Your task to perform on an android device: Open Google Chrome and open the bookmarks view Image 0: 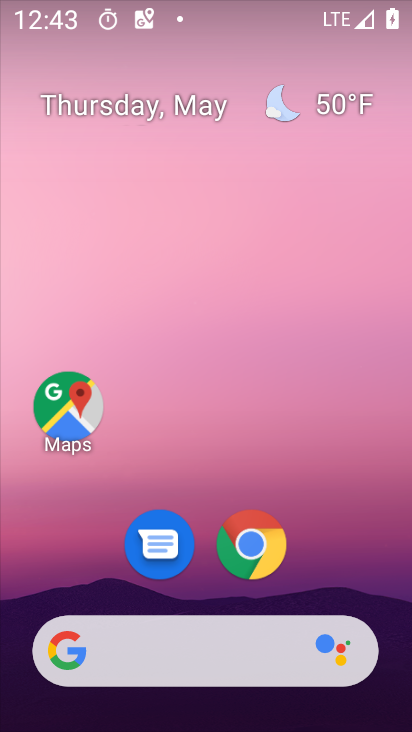
Step 0: click (264, 541)
Your task to perform on an android device: Open Google Chrome and open the bookmarks view Image 1: 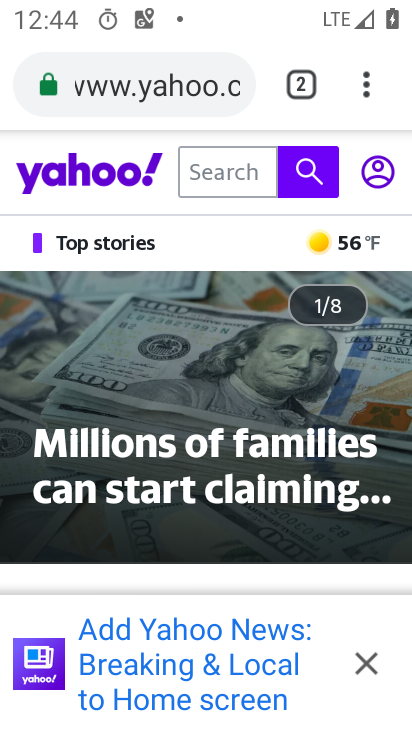
Step 1: task complete